Your task to perform on an android device: change your default location settings in chrome Image 0: 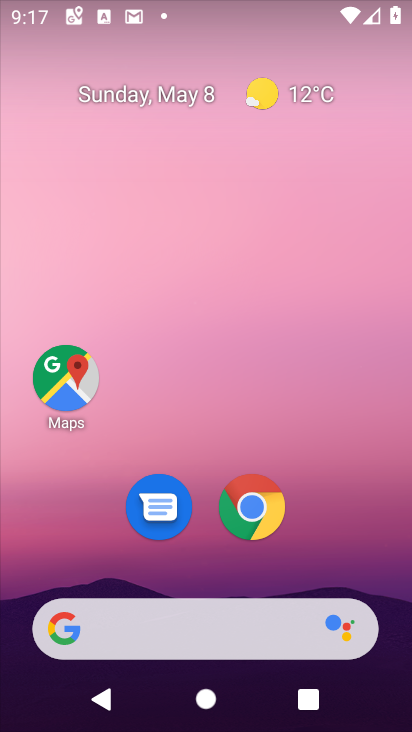
Step 0: drag from (247, 706) to (123, 41)
Your task to perform on an android device: change your default location settings in chrome Image 1: 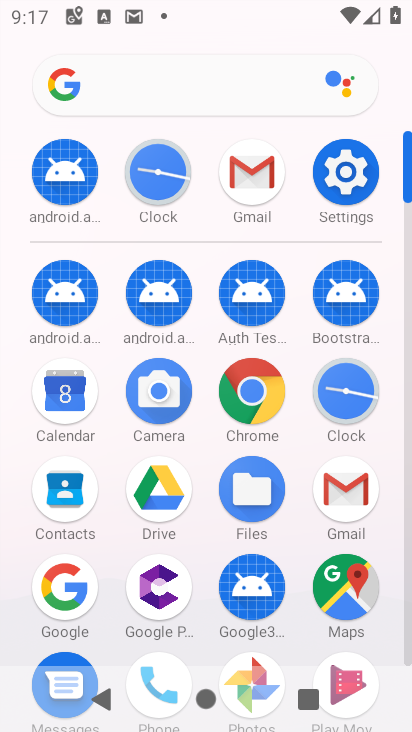
Step 1: click (348, 182)
Your task to perform on an android device: change your default location settings in chrome Image 2: 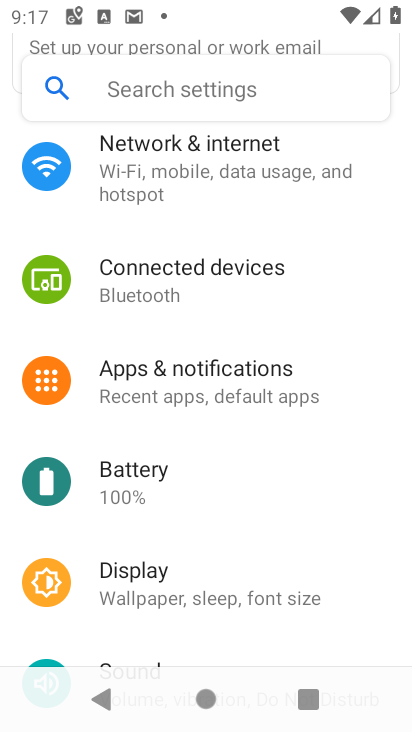
Step 2: press home button
Your task to perform on an android device: change your default location settings in chrome Image 3: 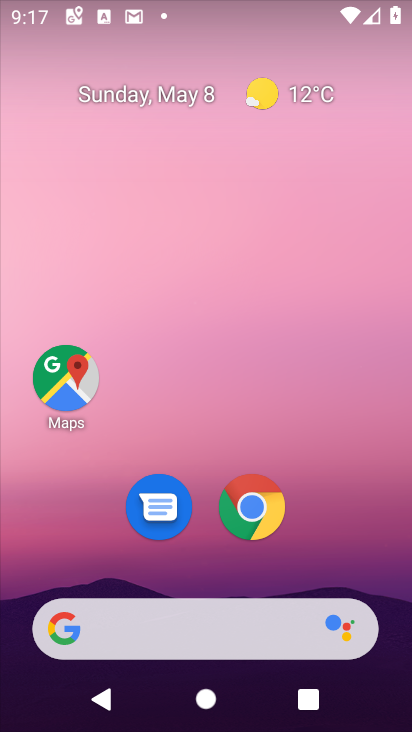
Step 3: click (257, 517)
Your task to perform on an android device: change your default location settings in chrome Image 4: 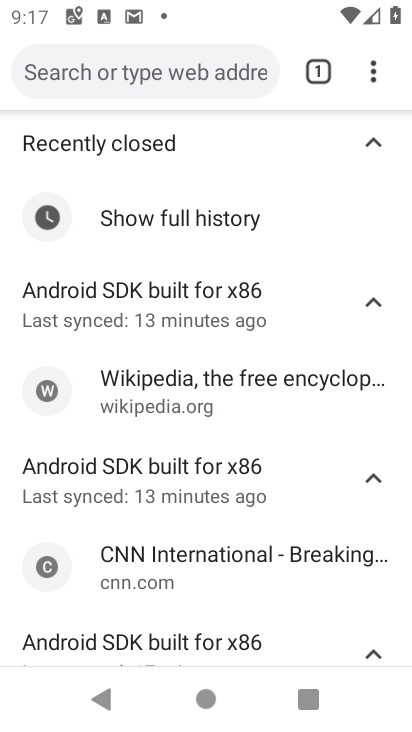
Step 4: drag from (374, 61) to (177, 497)
Your task to perform on an android device: change your default location settings in chrome Image 5: 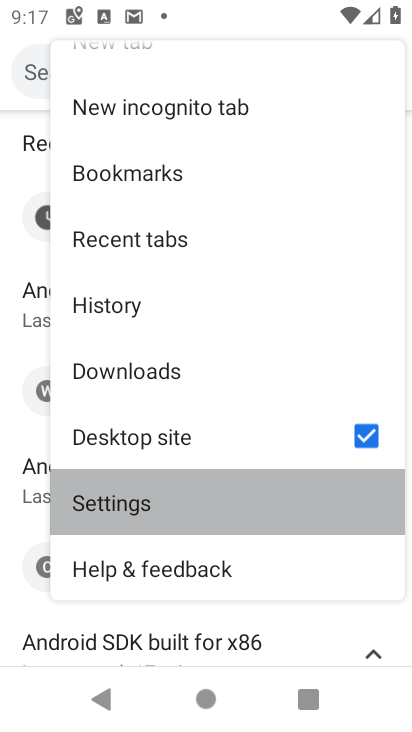
Step 5: click (177, 497)
Your task to perform on an android device: change your default location settings in chrome Image 6: 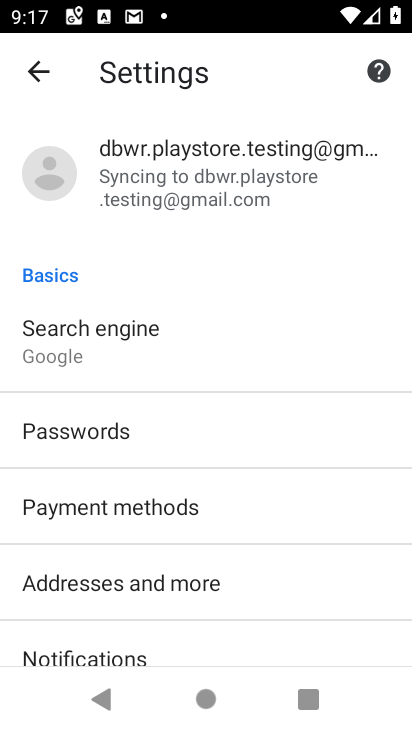
Step 6: drag from (245, 606) to (159, 67)
Your task to perform on an android device: change your default location settings in chrome Image 7: 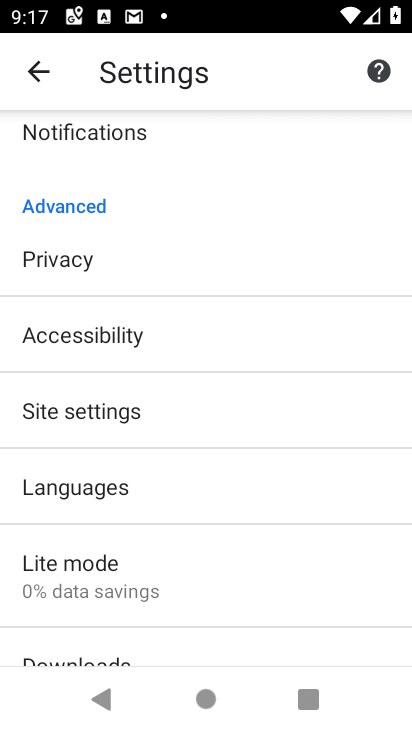
Step 7: click (139, 421)
Your task to perform on an android device: change your default location settings in chrome Image 8: 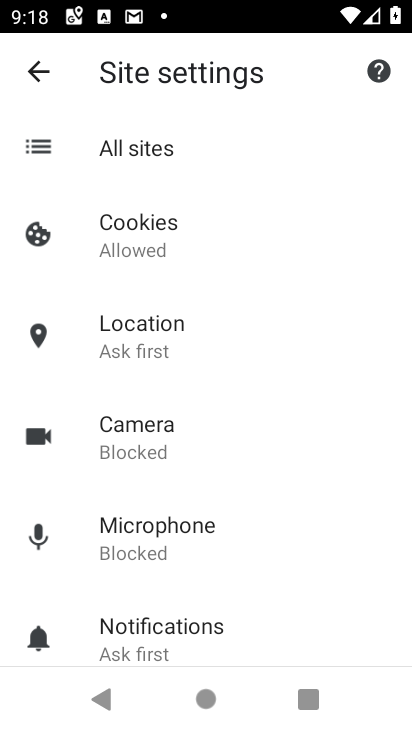
Step 8: click (127, 349)
Your task to perform on an android device: change your default location settings in chrome Image 9: 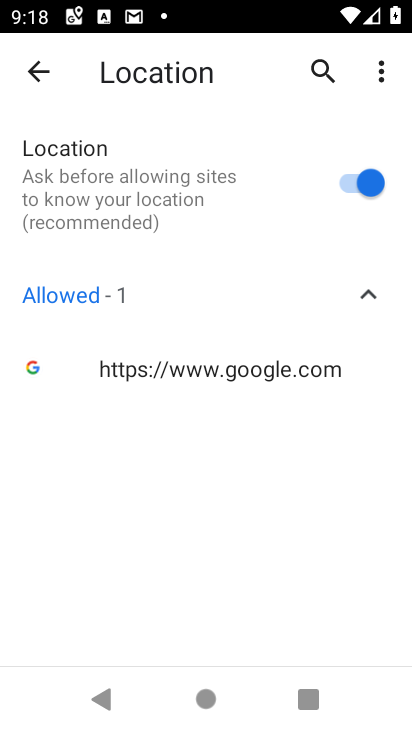
Step 9: click (375, 183)
Your task to perform on an android device: change your default location settings in chrome Image 10: 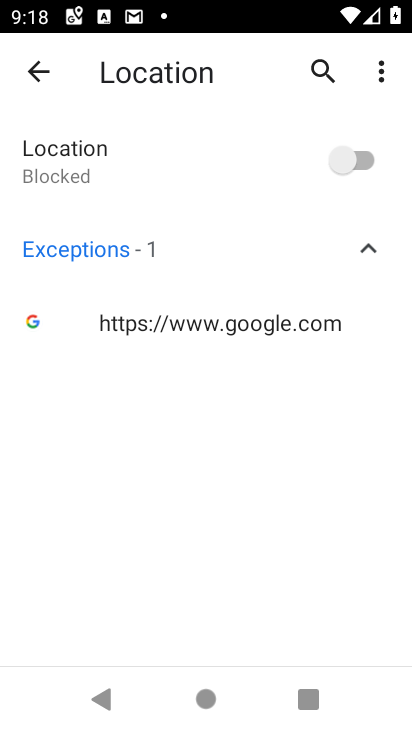
Step 10: task complete